Your task to perform on an android device: allow notifications from all sites in the chrome app Image 0: 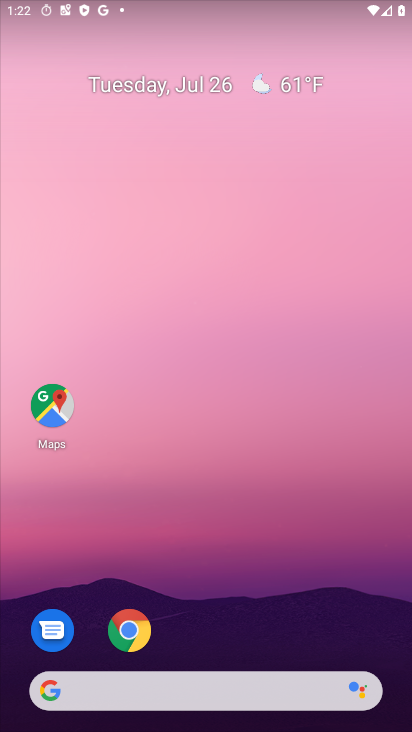
Step 0: drag from (251, 550) to (290, 46)
Your task to perform on an android device: allow notifications from all sites in the chrome app Image 1: 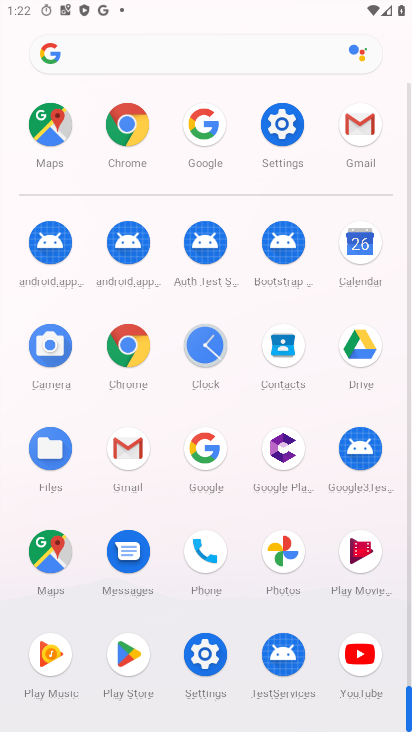
Step 1: click (144, 120)
Your task to perform on an android device: allow notifications from all sites in the chrome app Image 2: 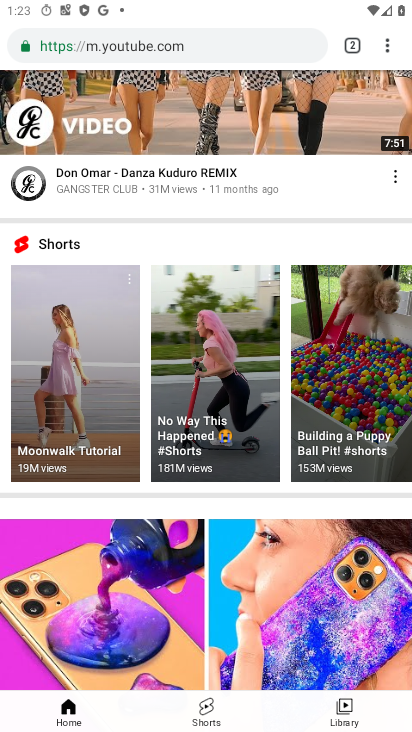
Step 2: drag from (234, 188) to (294, 562)
Your task to perform on an android device: allow notifications from all sites in the chrome app Image 3: 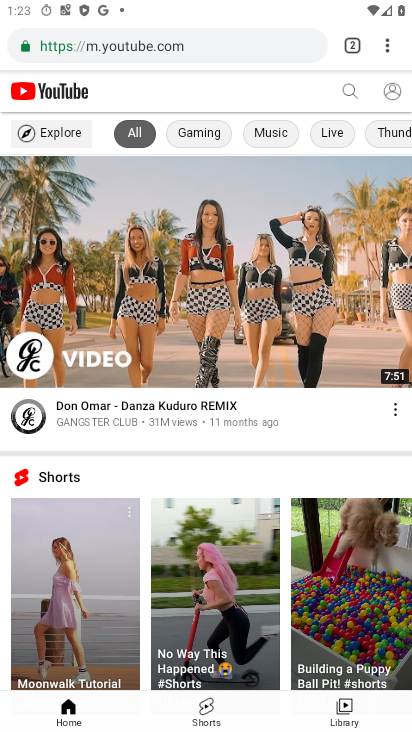
Step 3: press home button
Your task to perform on an android device: allow notifications from all sites in the chrome app Image 4: 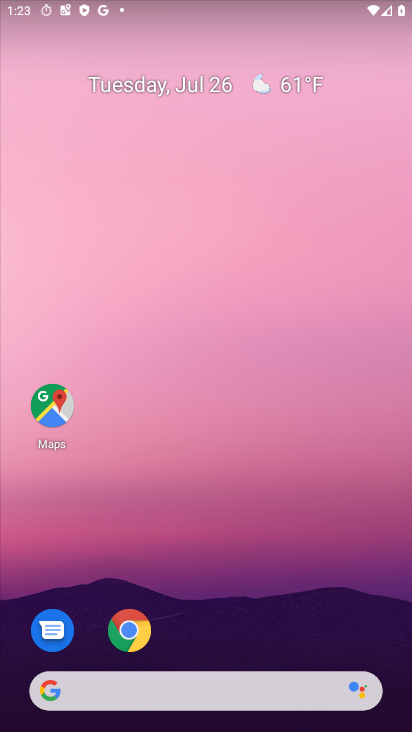
Step 4: drag from (274, 646) to (346, 91)
Your task to perform on an android device: allow notifications from all sites in the chrome app Image 5: 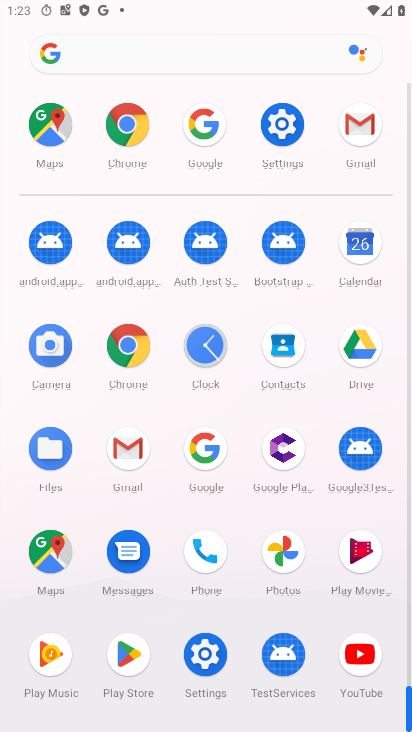
Step 5: click (135, 122)
Your task to perform on an android device: allow notifications from all sites in the chrome app Image 6: 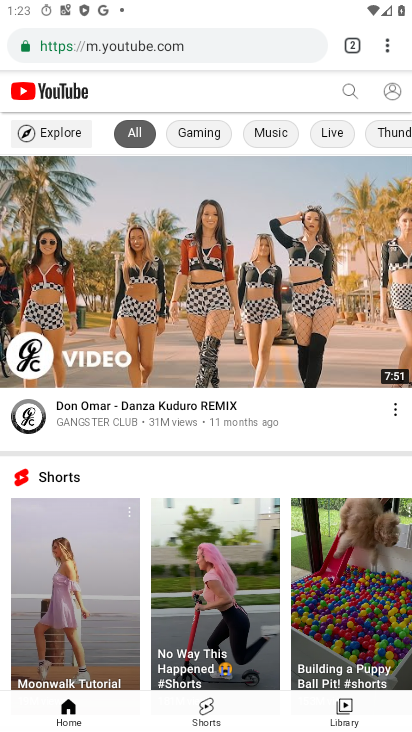
Step 6: press back button
Your task to perform on an android device: allow notifications from all sites in the chrome app Image 7: 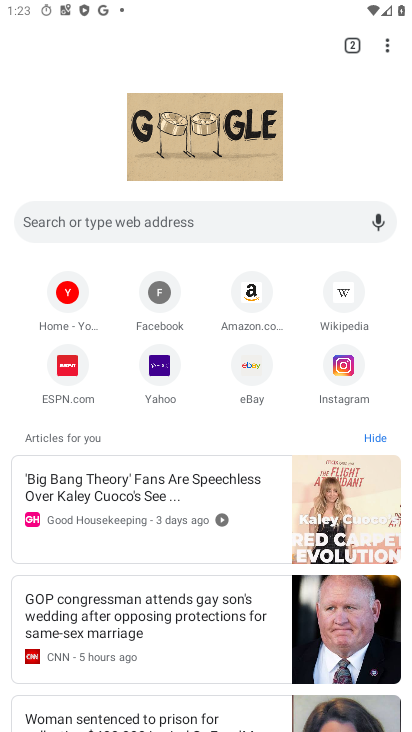
Step 7: drag from (388, 55) to (227, 384)
Your task to perform on an android device: allow notifications from all sites in the chrome app Image 8: 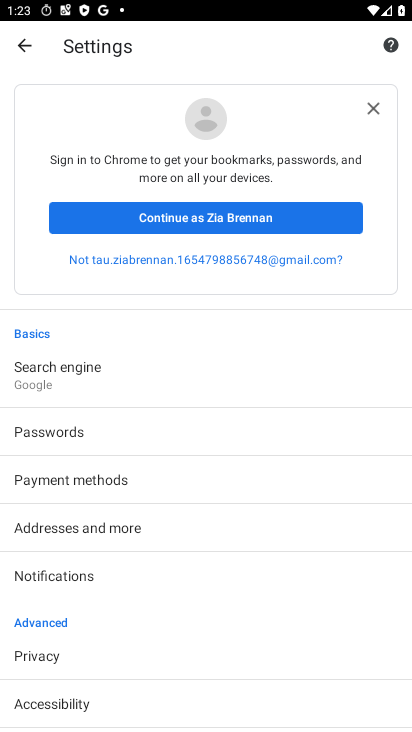
Step 8: drag from (152, 659) to (237, 272)
Your task to perform on an android device: allow notifications from all sites in the chrome app Image 9: 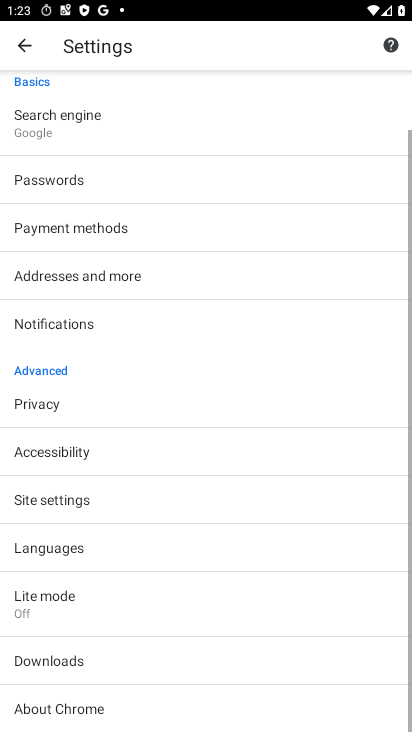
Step 9: click (81, 499)
Your task to perform on an android device: allow notifications from all sites in the chrome app Image 10: 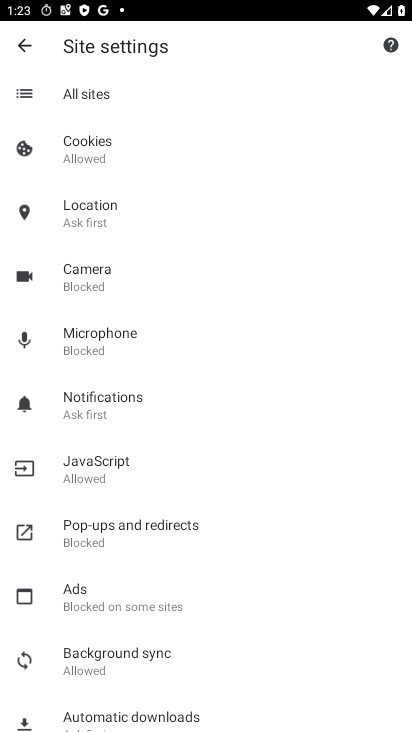
Step 10: click (116, 393)
Your task to perform on an android device: allow notifications from all sites in the chrome app Image 11: 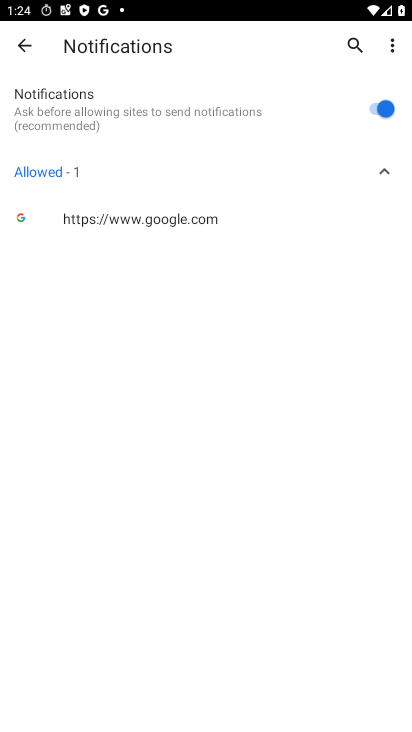
Step 11: task complete